Your task to perform on an android device: Open network settings Image 0: 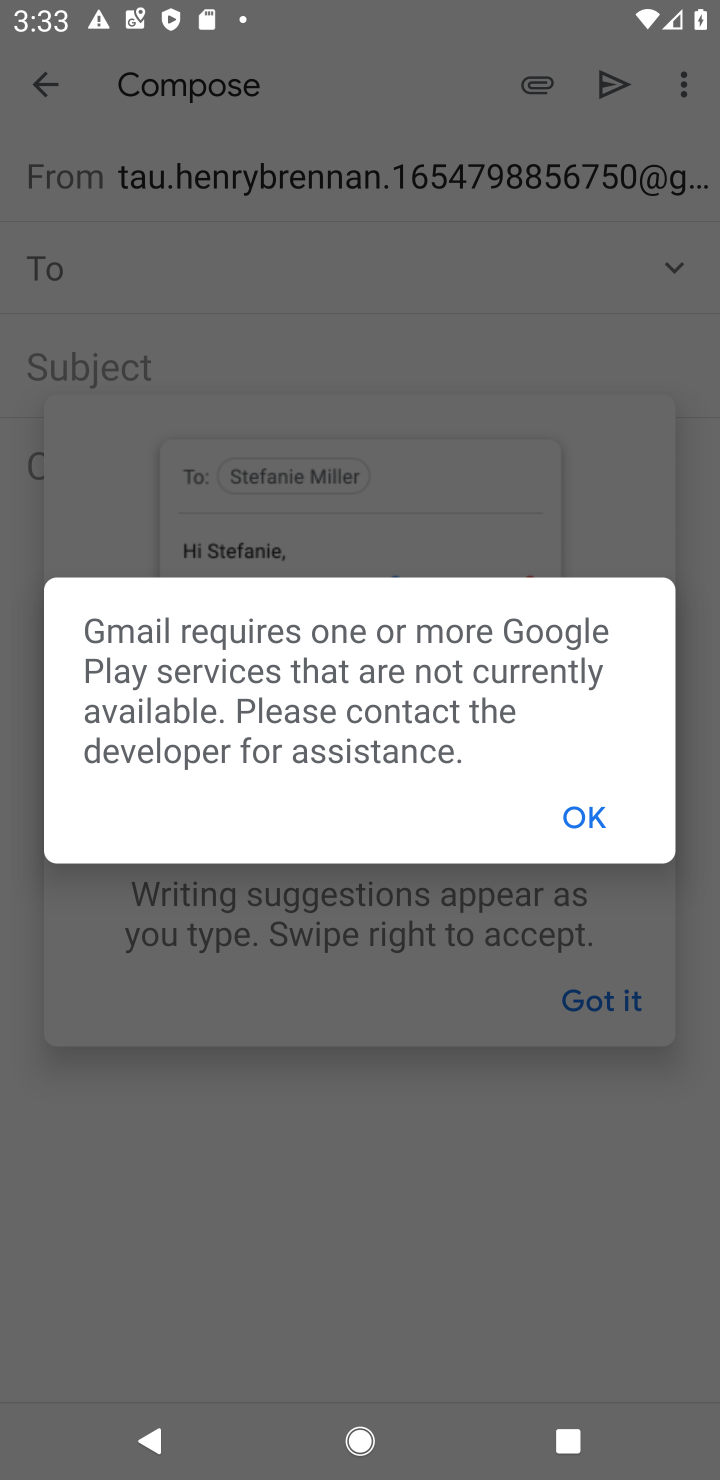
Step 0: press home button
Your task to perform on an android device: Open network settings Image 1: 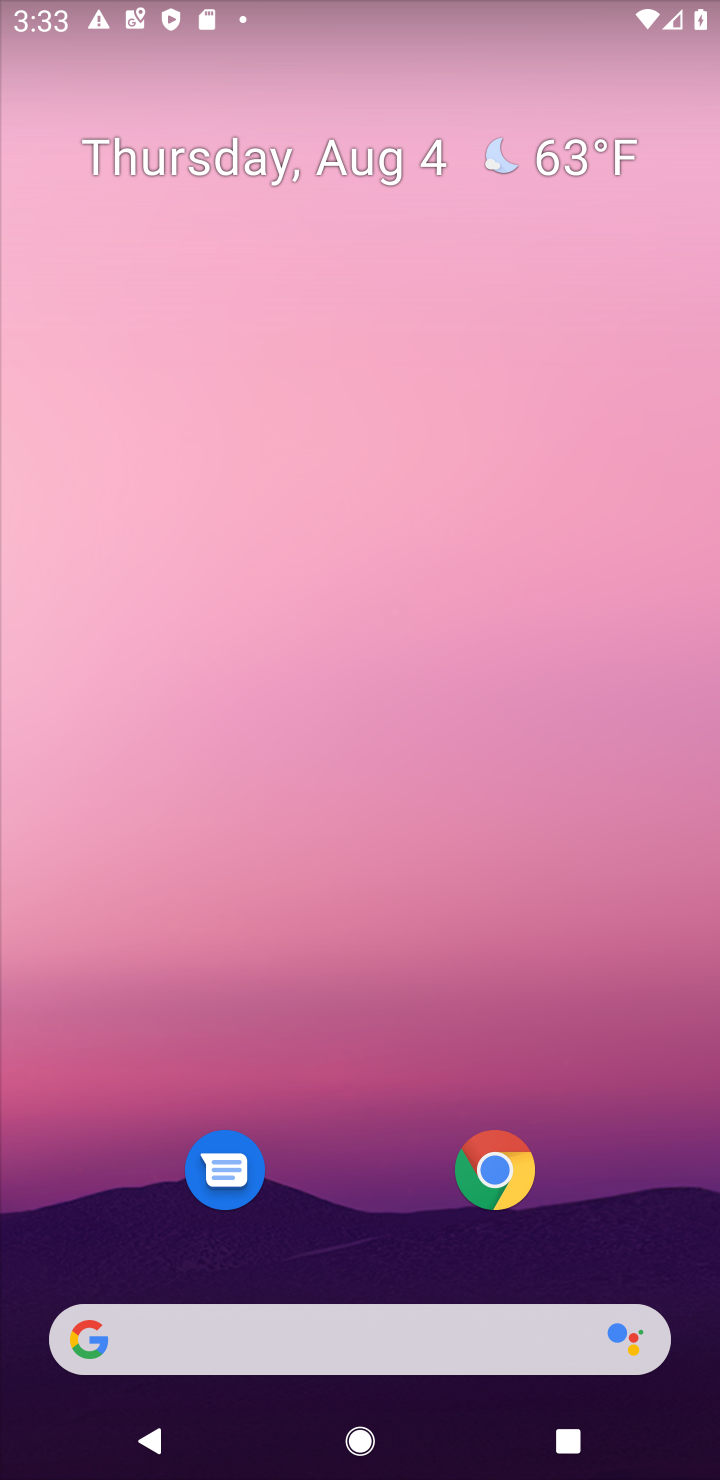
Step 1: drag from (653, 1215) to (588, 357)
Your task to perform on an android device: Open network settings Image 2: 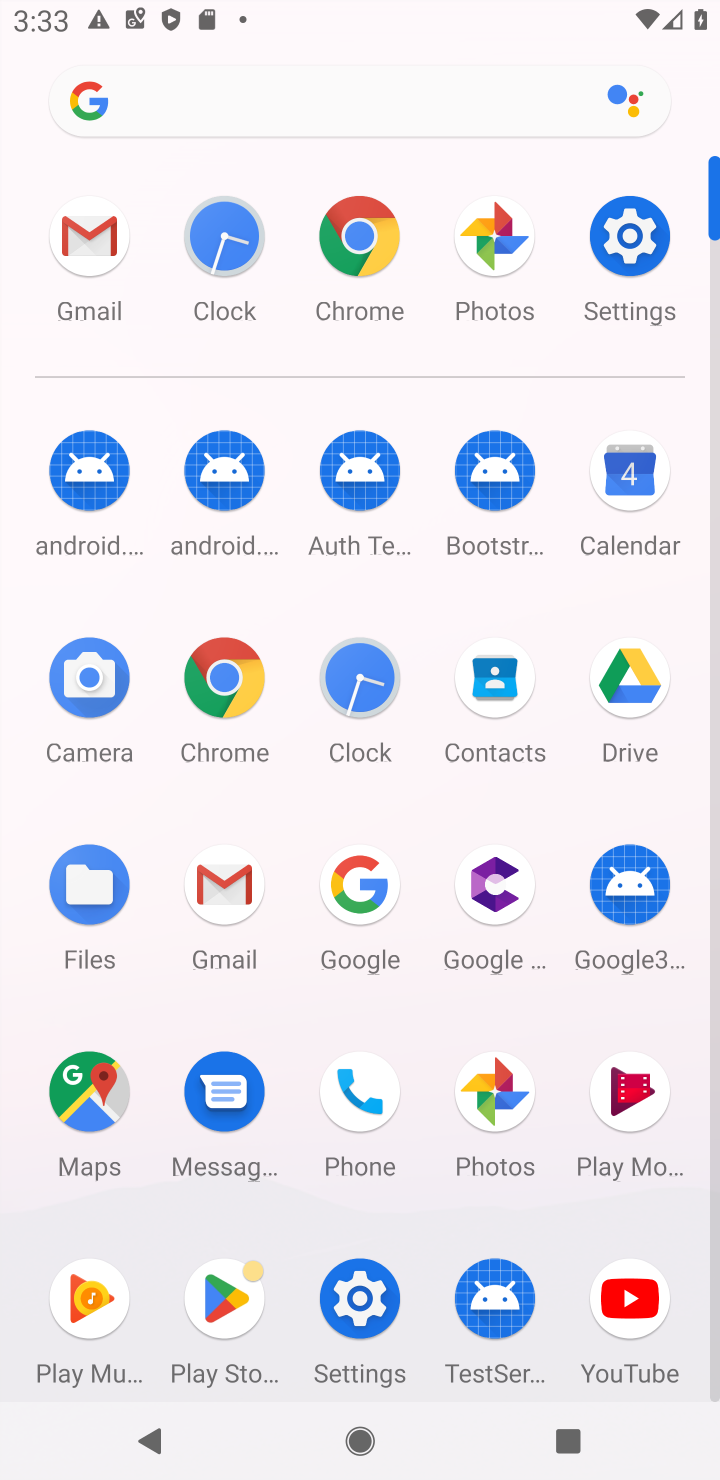
Step 2: click (345, 1295)
Your task to perform on an android device: Open network settings Image 3: 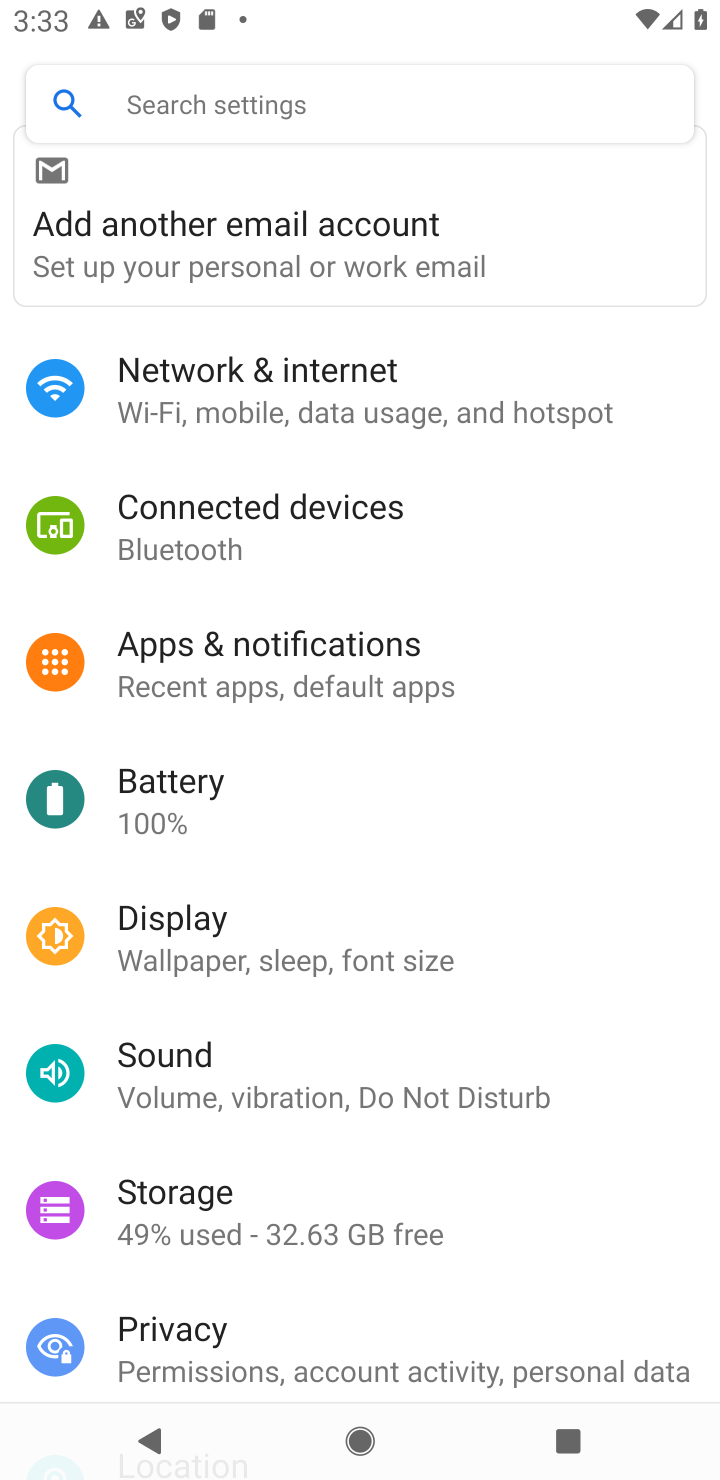
Step 3: click (213, 379)
Your task to perform on an android device: Open network settings Image 4: 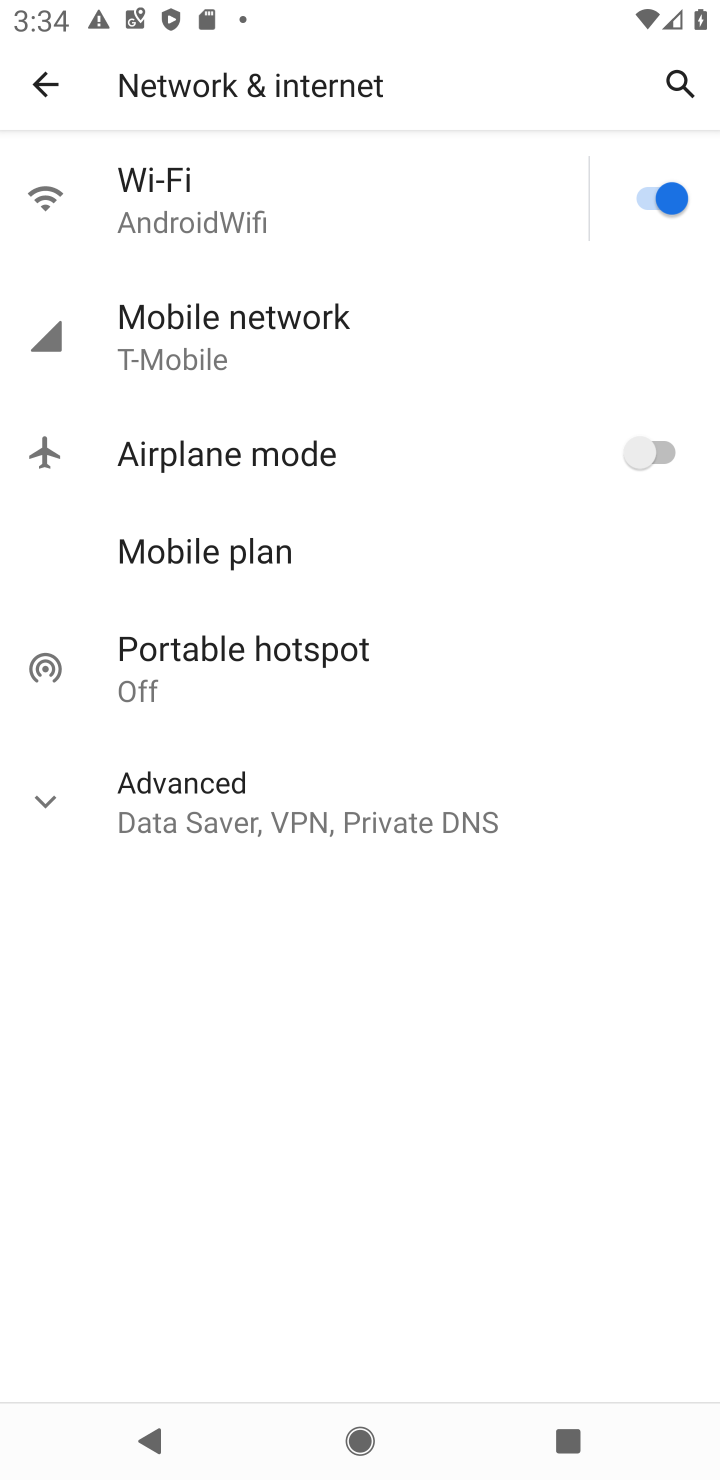
Step 4: click (193, 341)
Your task to perform on an android device: Open network settings Image 5: 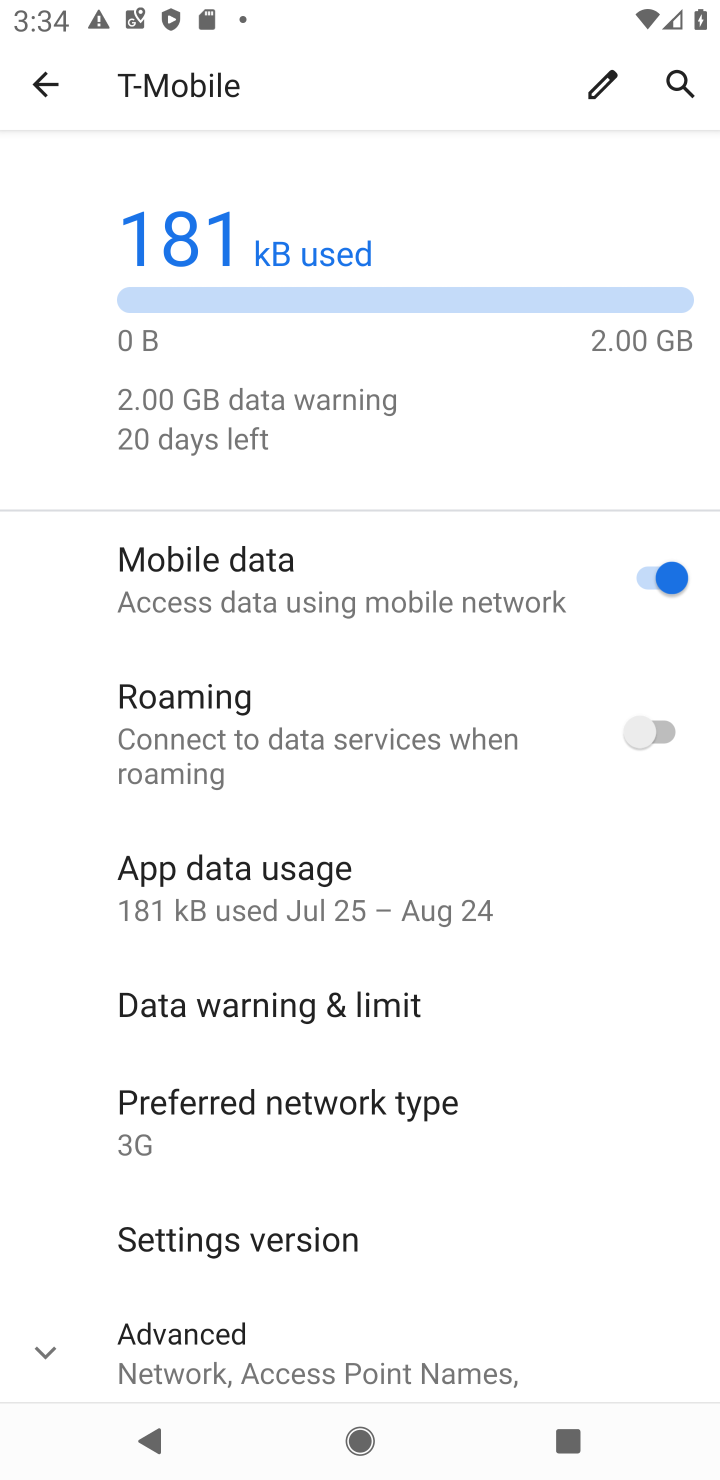
Step 5: click (36, 1331)
Your task to perform on an android device: Open network settings Image 6: 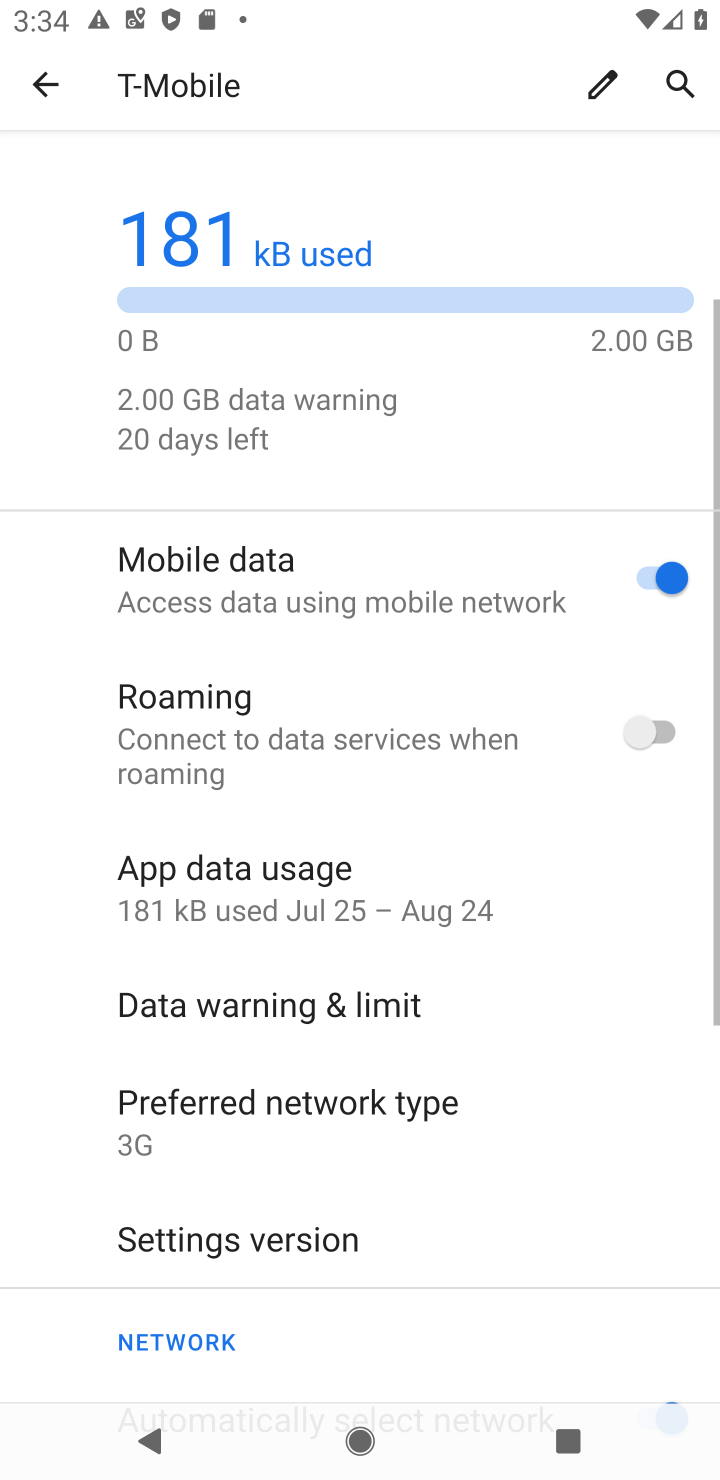
Step 6: task complete